Your task to perform on an android device: turn off data saver in the chrome app Image 0: 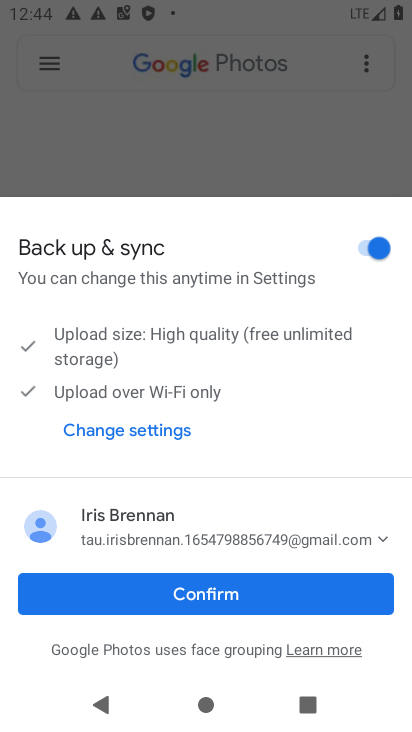
Step 0: press home button
Your task to perform on an android device: turn off data saver in the chrome app Image 1: 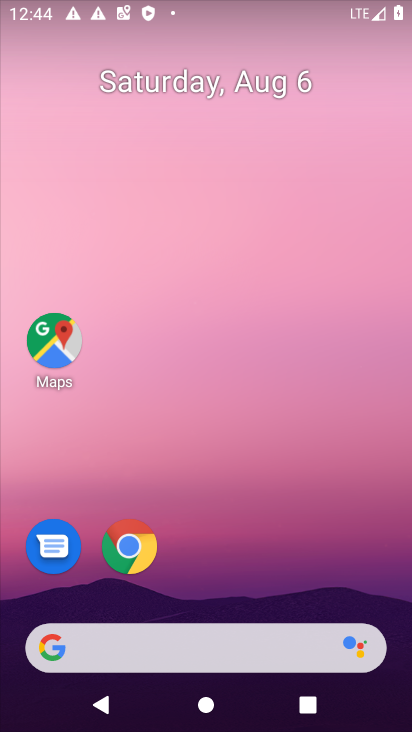
Step 1: click (132, 546)
Your task to perform on an android device: turn off data saver in the chrome app Image 2: 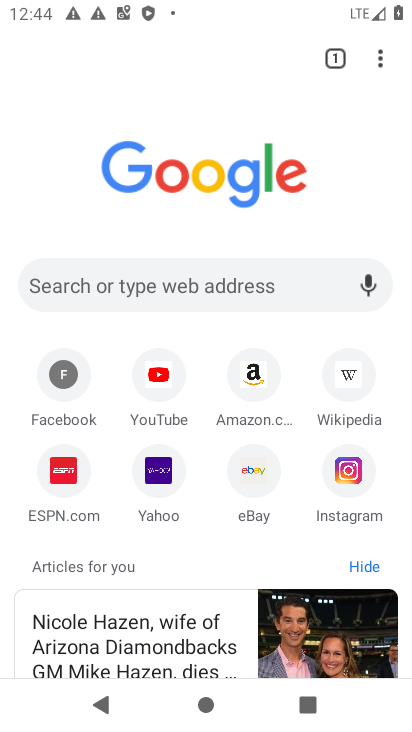
Step 2: click (372, 64)
Your task to perform on an android device: turn off data saver in the chrome app Image 3: 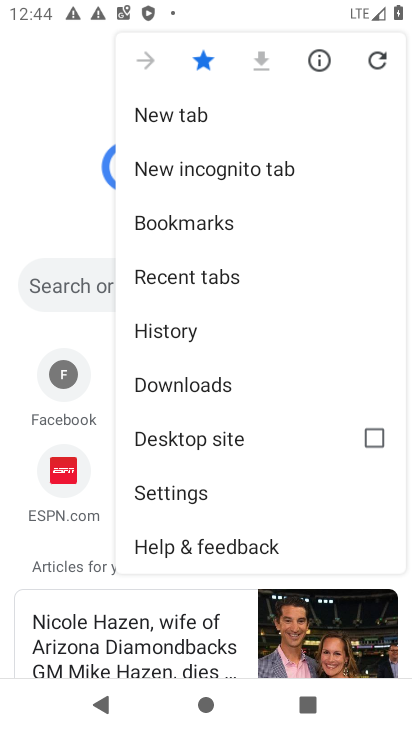
Step 3: click (171, 494)
Your task to perform on an android device: turn off data saver in the chrome app Image 4: 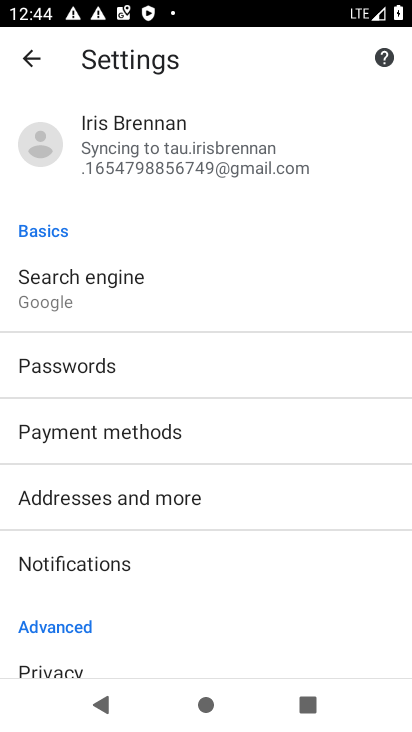
Step 4: drag from (219, 604) to (235, 209)
Your task to perform on an android device: turn off data saver in the chrome app Image 5: 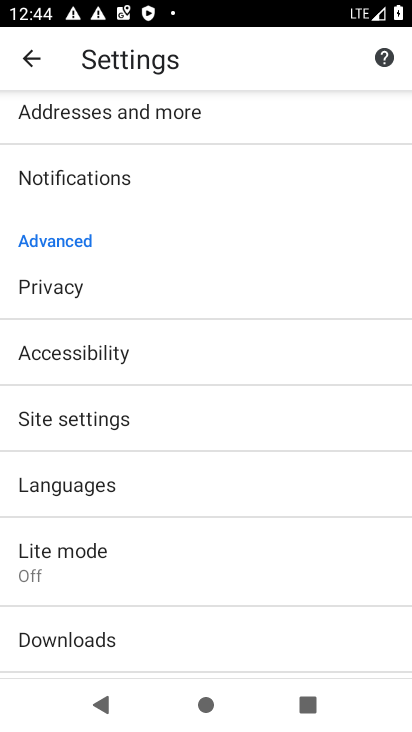
Step 5: click (60, 562)
Your task to perform on an android device: turn off data saver in the chrome app Image 6: 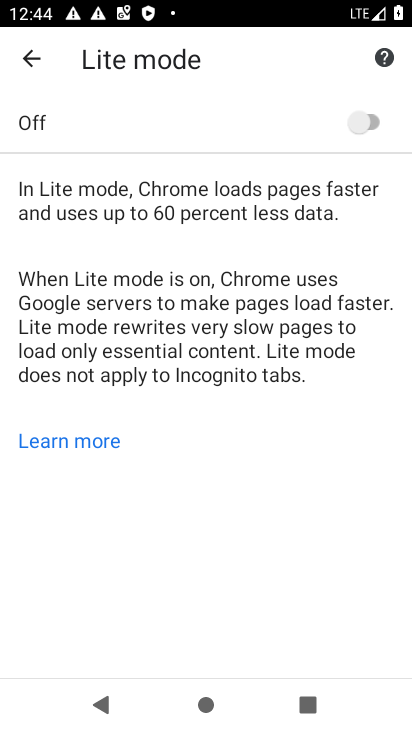
Step 6: task complete